Your task to perform on an android device: create a new album in the google photos Image 0: 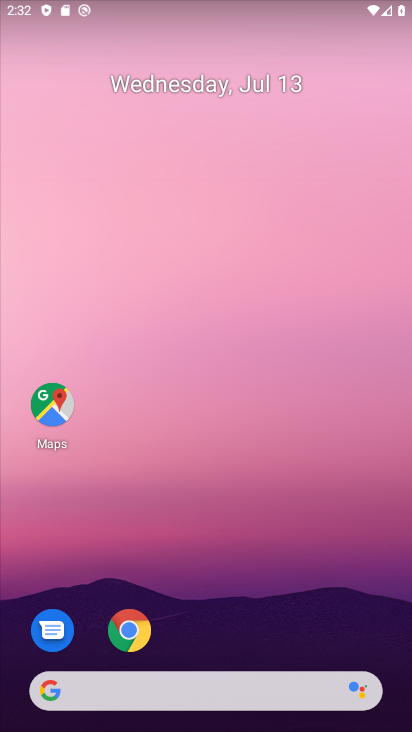
Step 0: drag from (242, 636) to (176, 171)
Your task to perform on an android device: create a new album in the google photos Image 1: 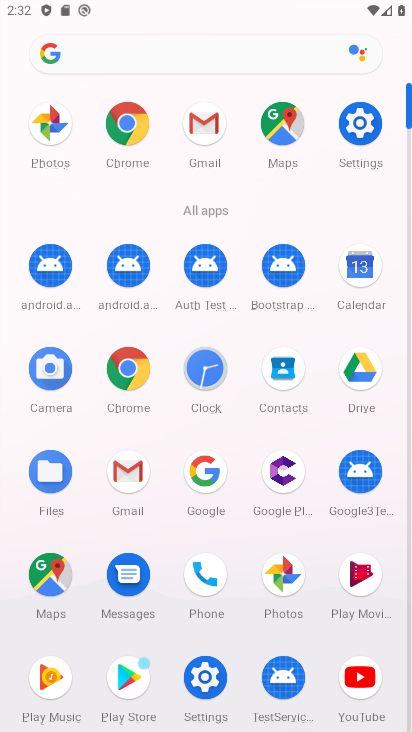
Step 1: click (50, 131)
Your task to perform on an android device: create a new album in the google photos Image 2: 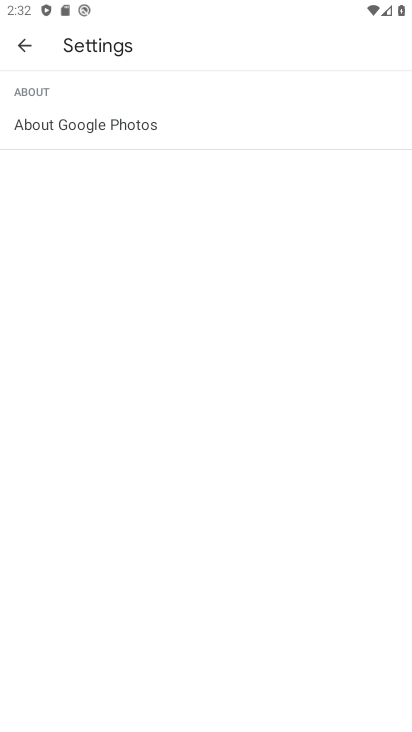
Step 2: click (19, 47)
Your task to perform on an android device: create a new album in the google photos Image 3: 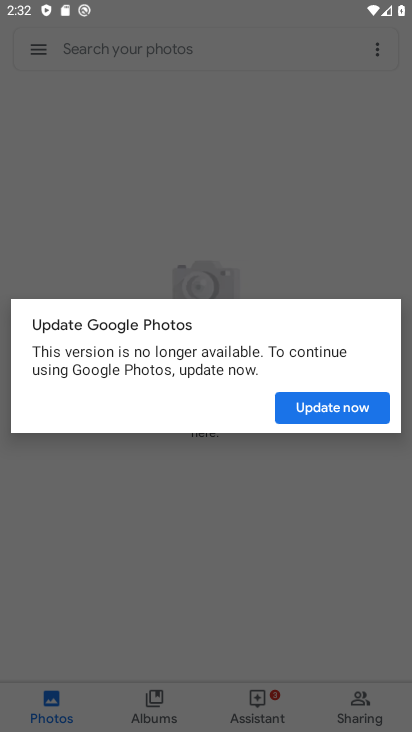
Step 3: click (377, 411)
Your task to perform on an android device: create a new album in the google photos Image 4: 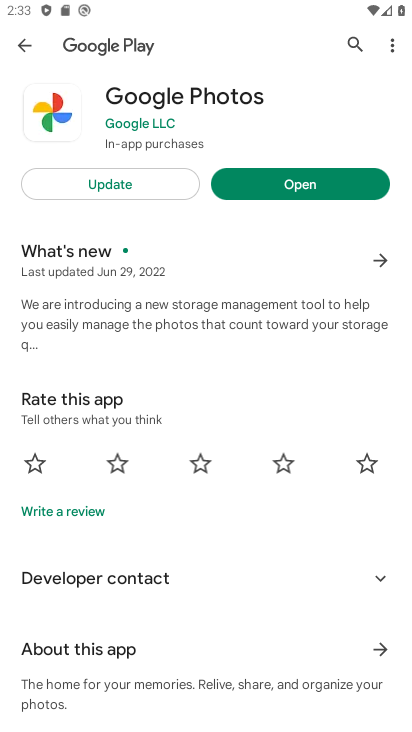
Step 4: click (110, 178)
Your task to perform on an android device: create a new album in the google photos Image 5: 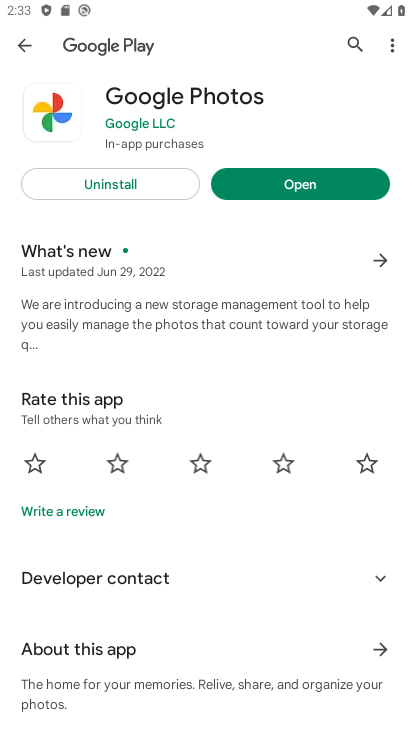
Step 5: click (278, 180)
Your task to perform on an android device: create a new album in the google photos Image 6: 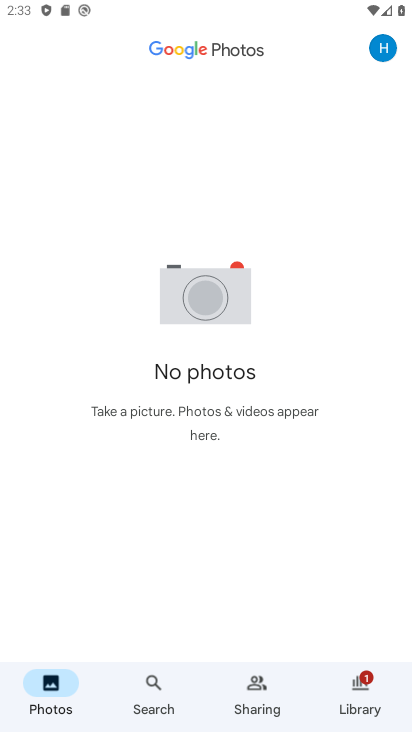
Step 6: click (374, 683)
Your task to perform on an android device: create a new album in the google photos Image 7: 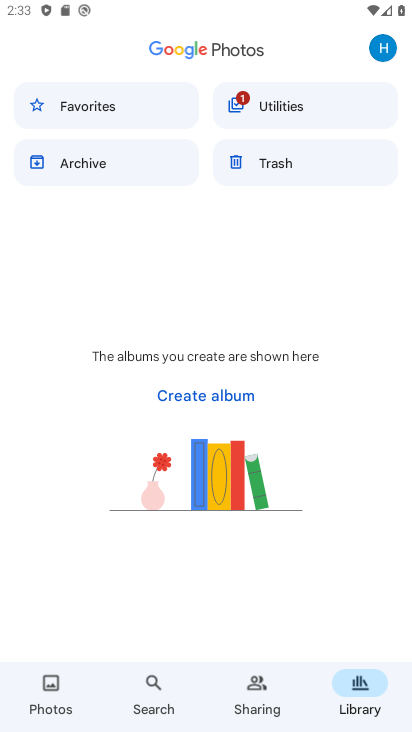
Step 7: click (199, 394)
Your task to perform on an android device: create a new album in the google photos Image 8: 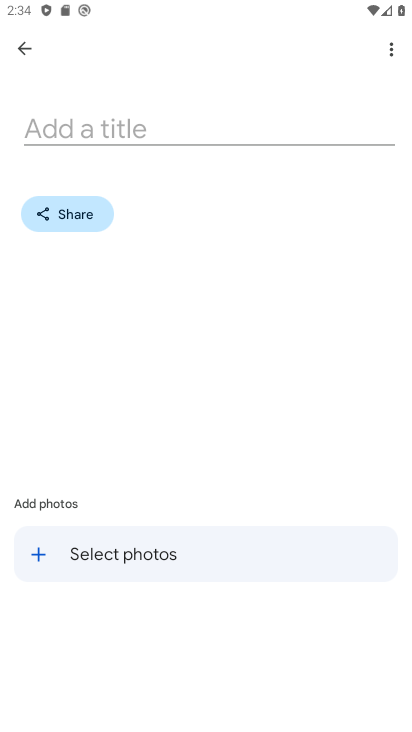
Step 8: click (147, 124)
Your task to perform on an android device: create a new album in the google photos Image 9: 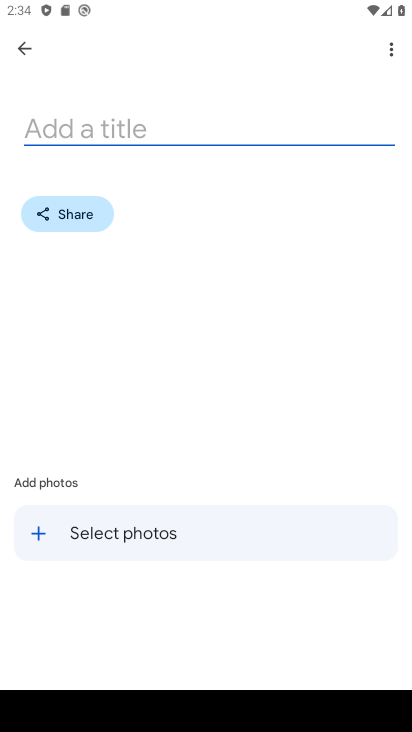
Step 9: type "mmm"
Your task to perform on an android device: create a new album in the google photos Image 10: 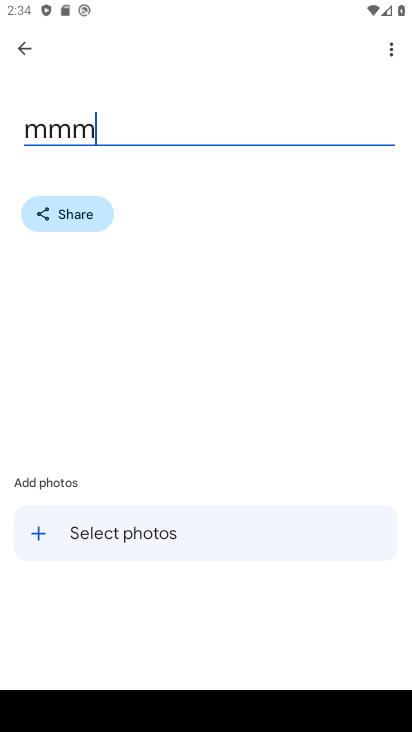
Step 10: click (227, 538)
Your task to perform on an android device: create a new album in the google photos Image 11: 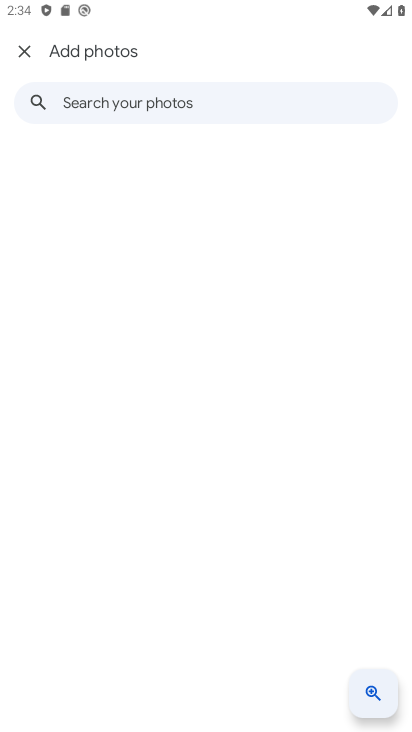
Step 11: task complete